Your task to perform on an android device: Go to Google maps Image 0: 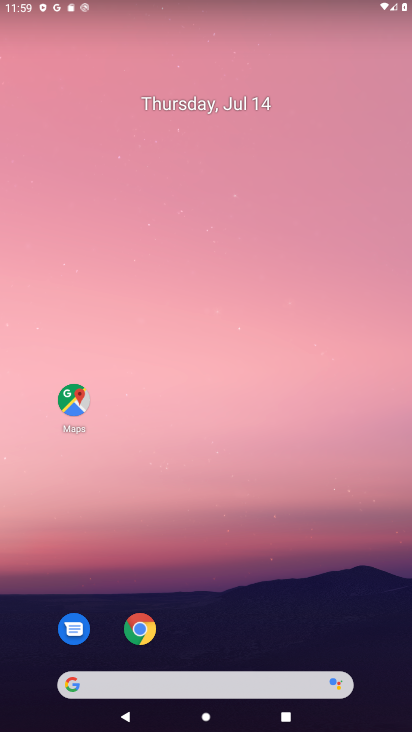
Step 0: click (64, 405)
Your task to perform on an android device: Go to Google maps Image 1: 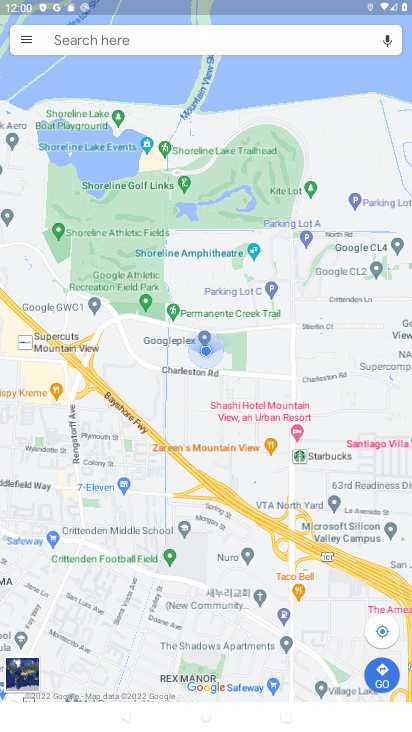
Step 1: task complete